Your task to perform on an android device: Open Wikipedia Image 0: 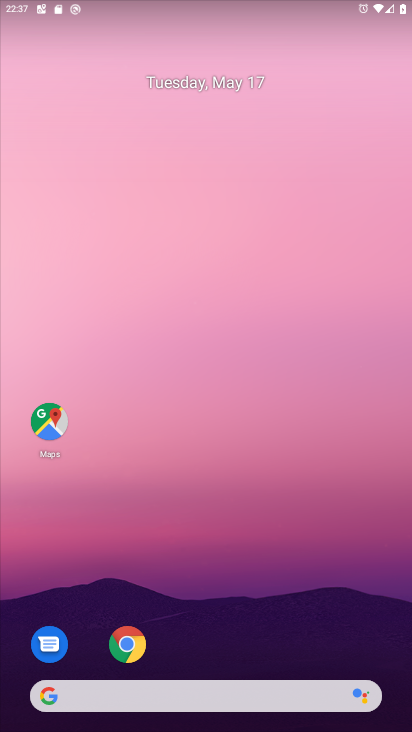
Step 0: press home button
Your task to perform on an android device: Open Wikipedia Image 1: 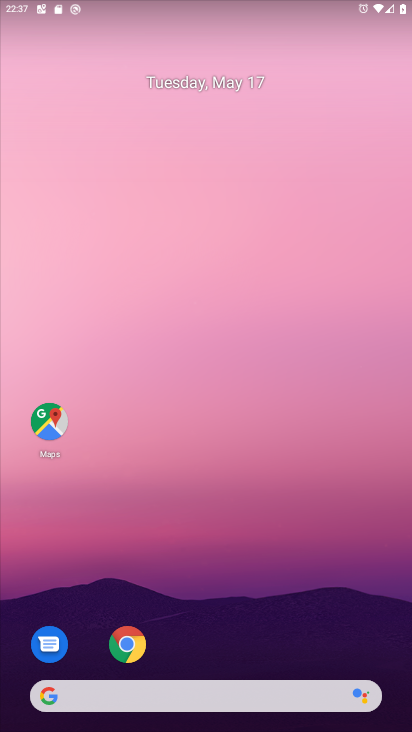
Step 1: press home button
Your task to perform on an android device: Open Wikipedia Image 2: 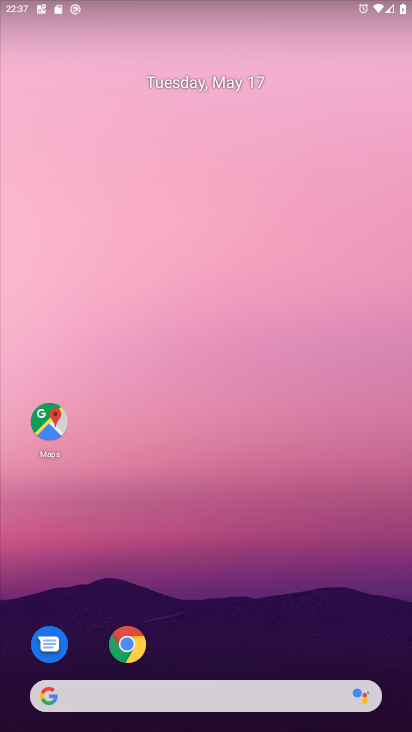
Step 2: click (130, 637)
Your task to perform on an android device: Open Wikipedia Image 3: 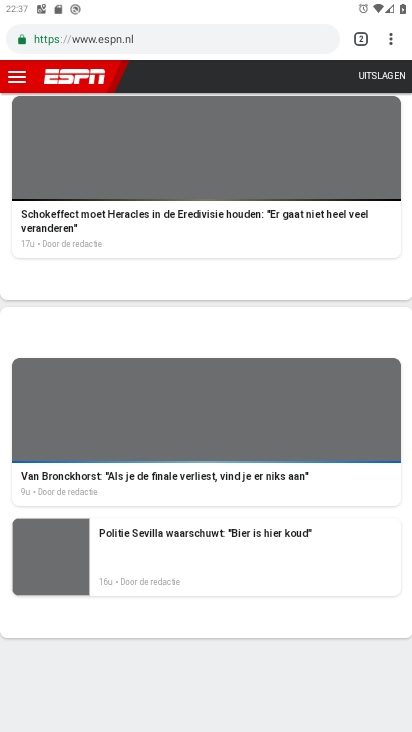
Step 3: click (357, 35)
Your task to perform on an android device: Open Wikipedia Image 4: 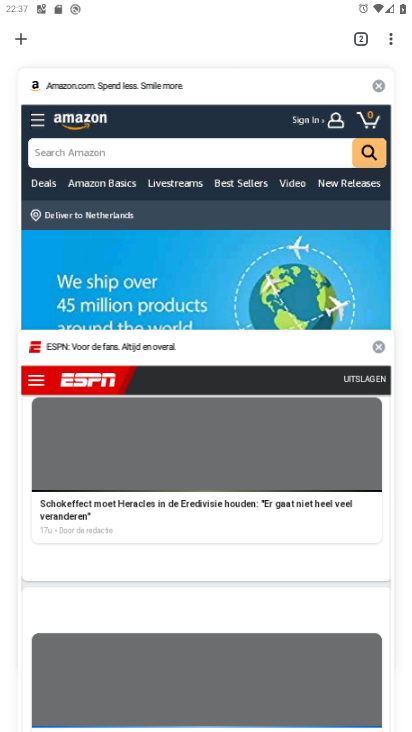
Step 4: click (380, 82)
Your task to perform on an android device: Open Wikipedia Image 5: 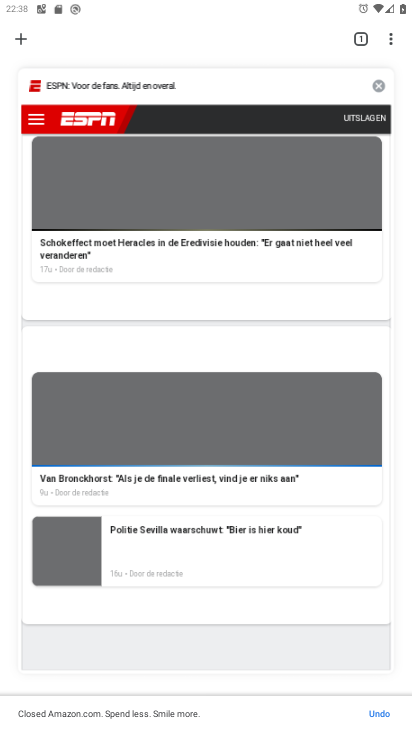
Step 5: click (380, 82)
Your task to perform on an android device: Open Wikipedia Image 6: 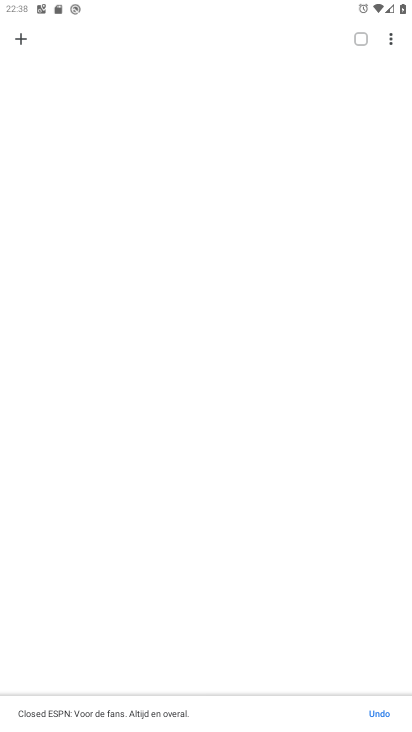
Step 6: click (24, 32)
Your task to perform on an android device: Open Wikipedia Image 7: 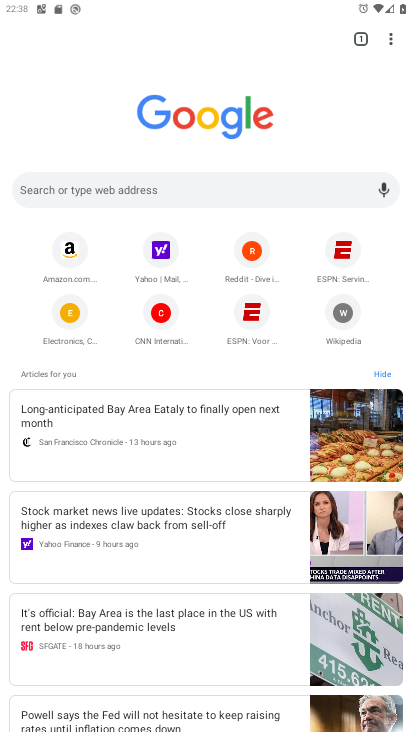
Step 7: click (107, 185)
Your task to perform on an android device: Open Wikipedia Image 8: 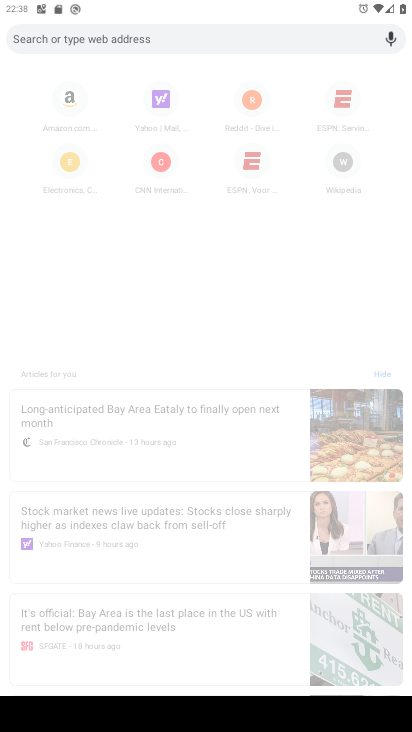
Step 8: click (336, 165)
Your task to perform on an android device: Open Wikipedia Image 9: 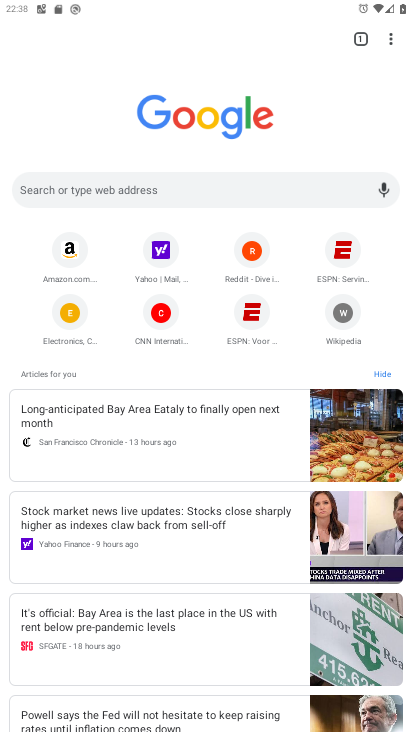
Step 9: click (356, 307)
Your task to perform on an android device: Open Wikipedia Image 10: 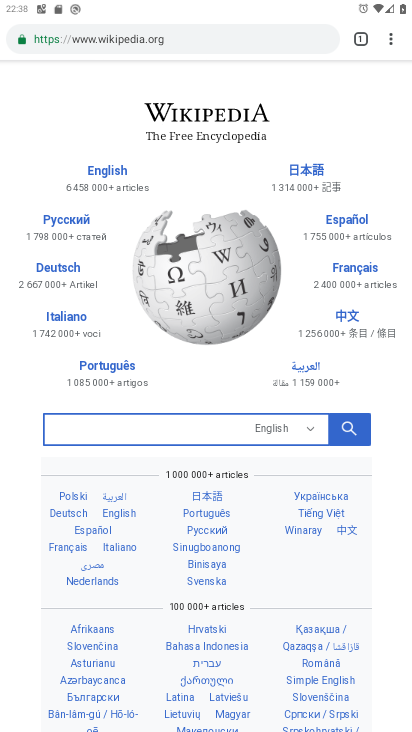
Step 10: task complete